Your task to perform on an android device: star an email in the gmail app Image 0: 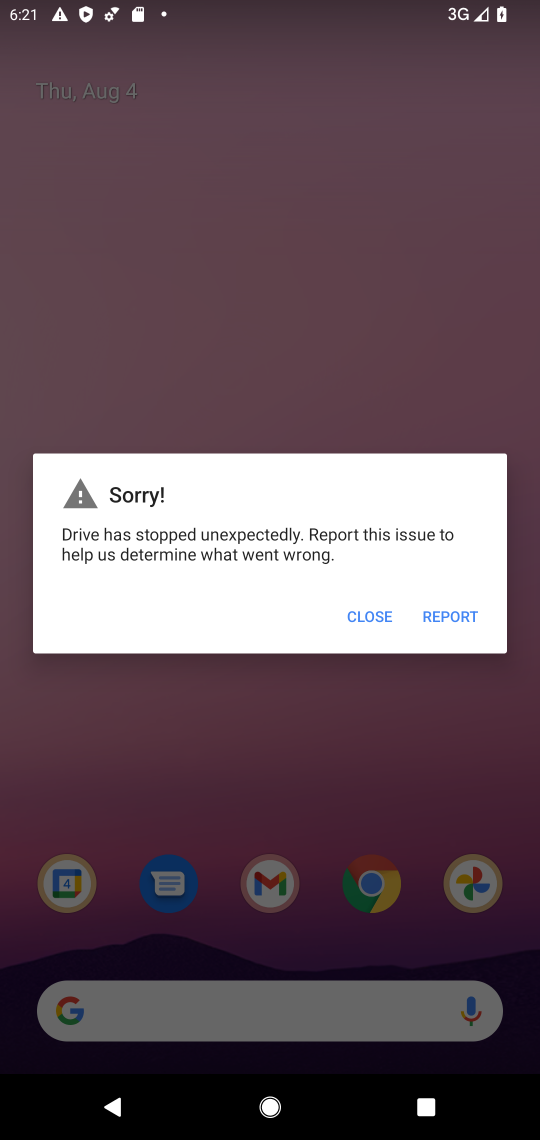
Step 0: click (378, 614)
Your task to perform on an android device: star an email in the gmail app Image 1: 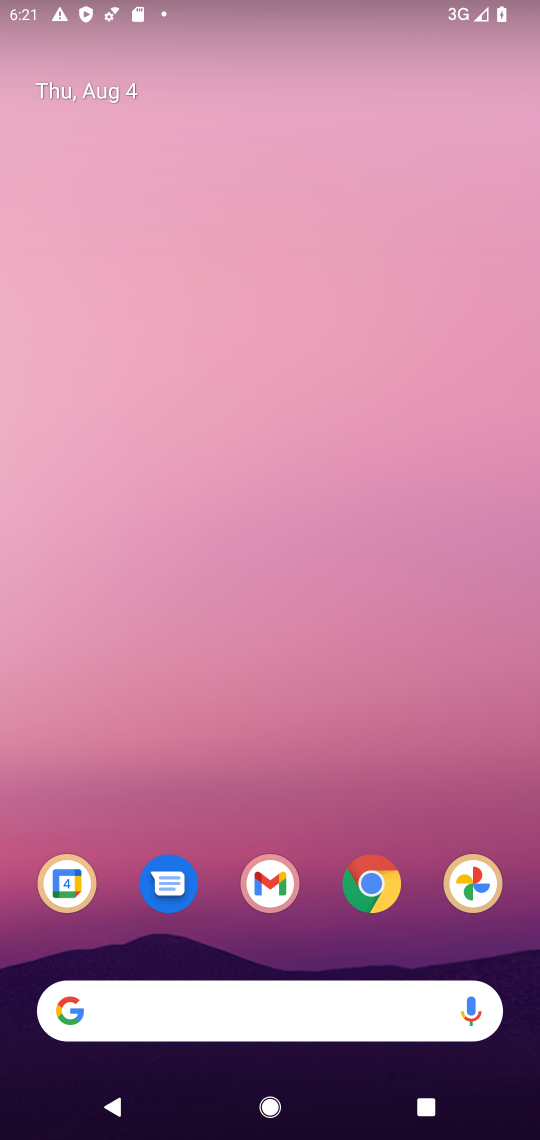
Step 1: click (276, 863)
Your task to perform on an android device: star an email in the gmail app Image 2: 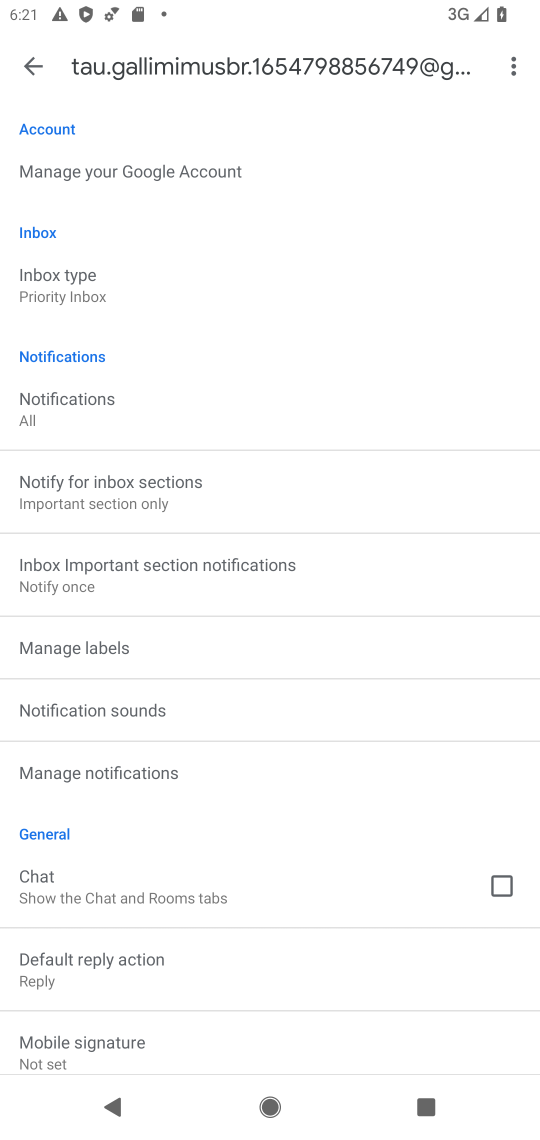
Step 2: click (31, 75)
Your task to perform on an android device: star an email in the gmail app Image 3: 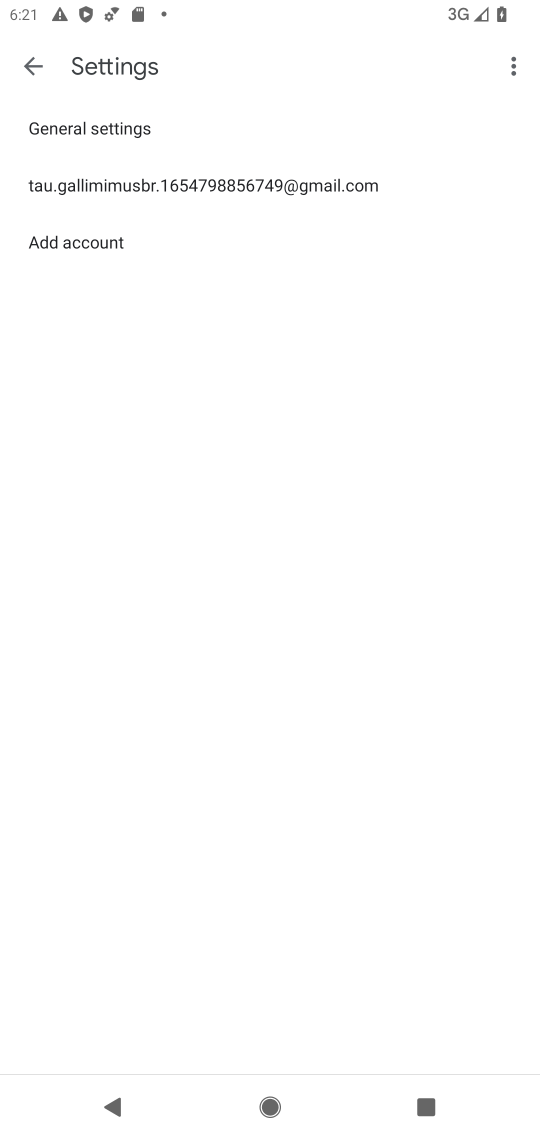
Step 3: click (31, 75)
Your task to perform on an android device: star an email in the gmail app Image 4: 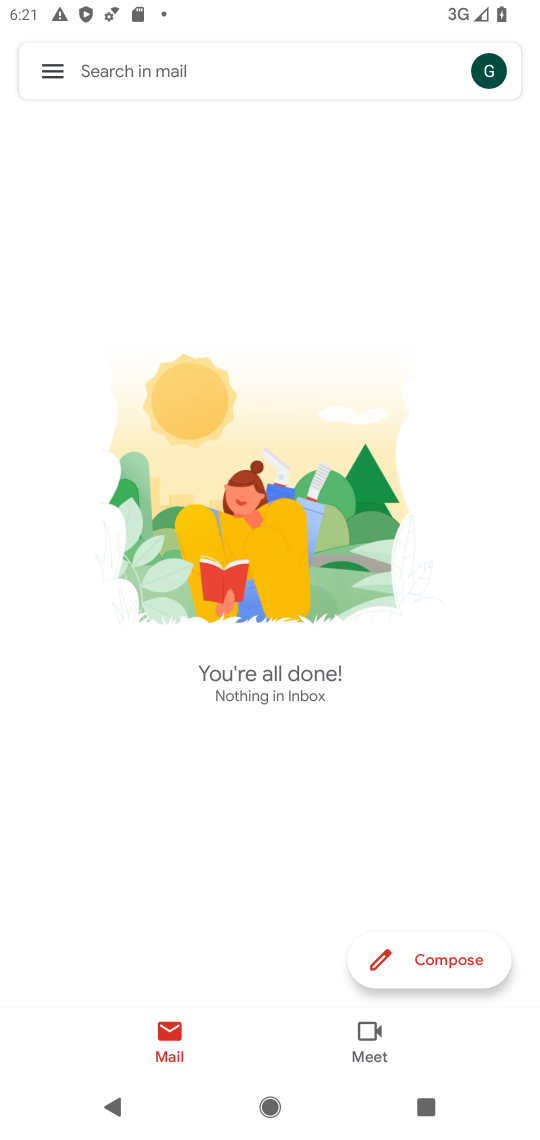
Step 4: task complete